Your task to perform on an android device: turn on the 12-hour format for clock Image 0: 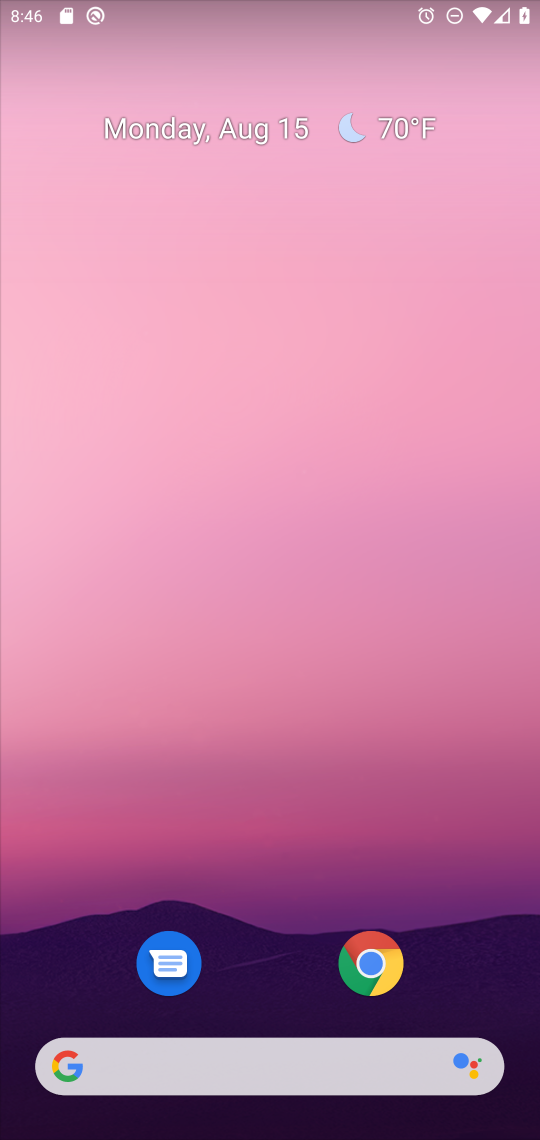
Step 0: drag from (280, 979) to (215, 330)
Your task to perform on an android device: turn on the 12-hour format for clock Image 1: 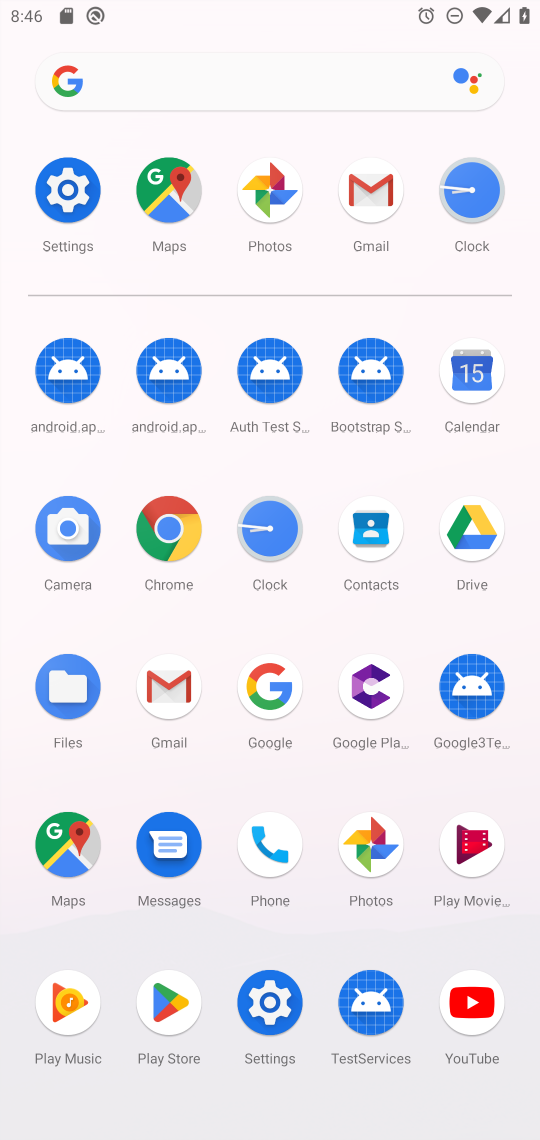
Step 1: click (284, 511)
Your task to perform on an android device: turn on the 12-hour format for clock Image 2: 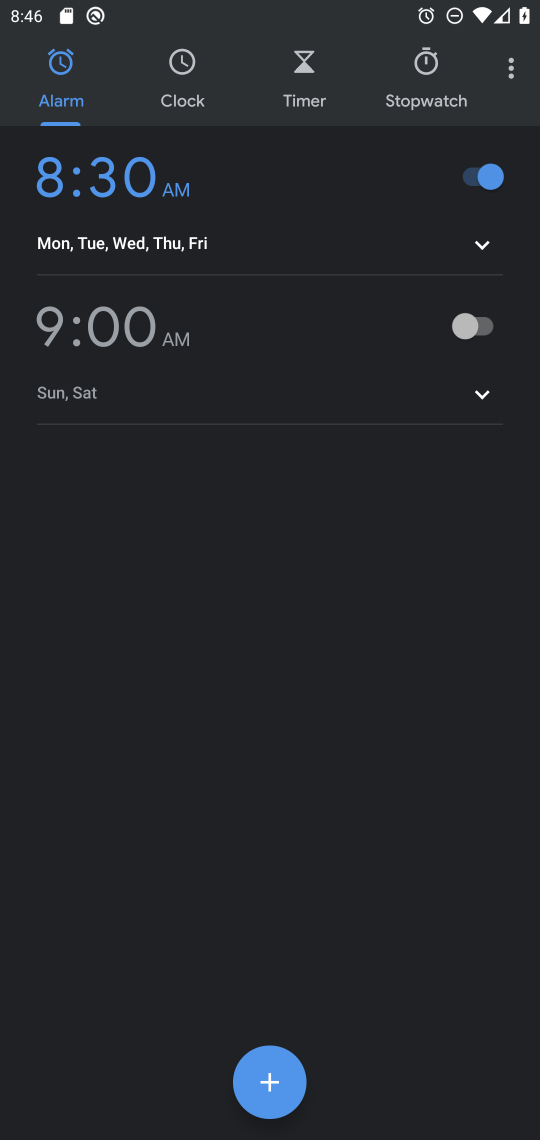
Step 2: click (529, 63)
Your task to perform on an android device: turn on the 12-hour format for clock Image 3: 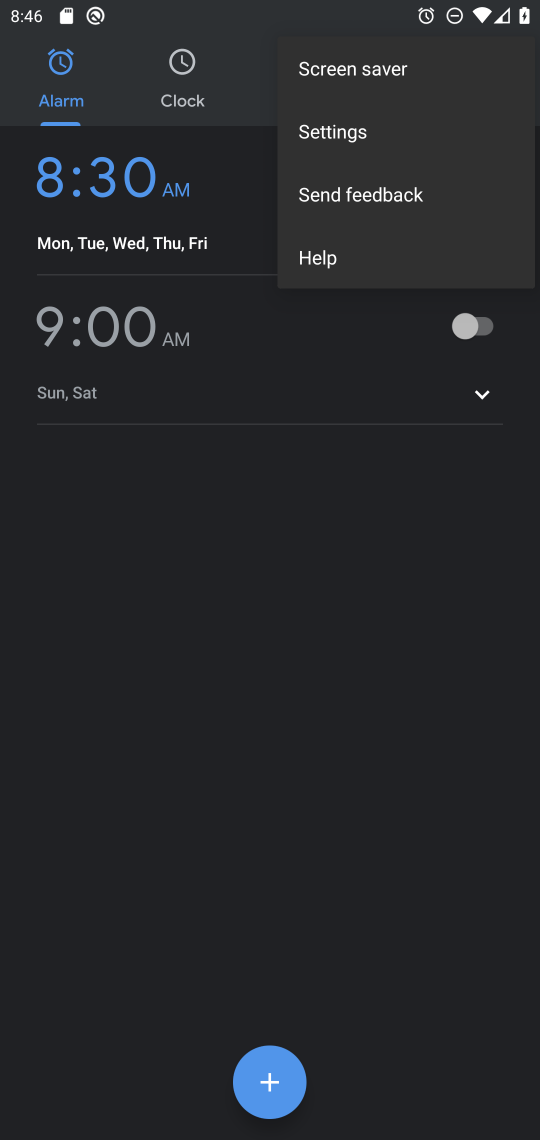
Step 3: click (327, 124)
Your task to perform on an android device: turn on the 12-hour format for clock Image 4: 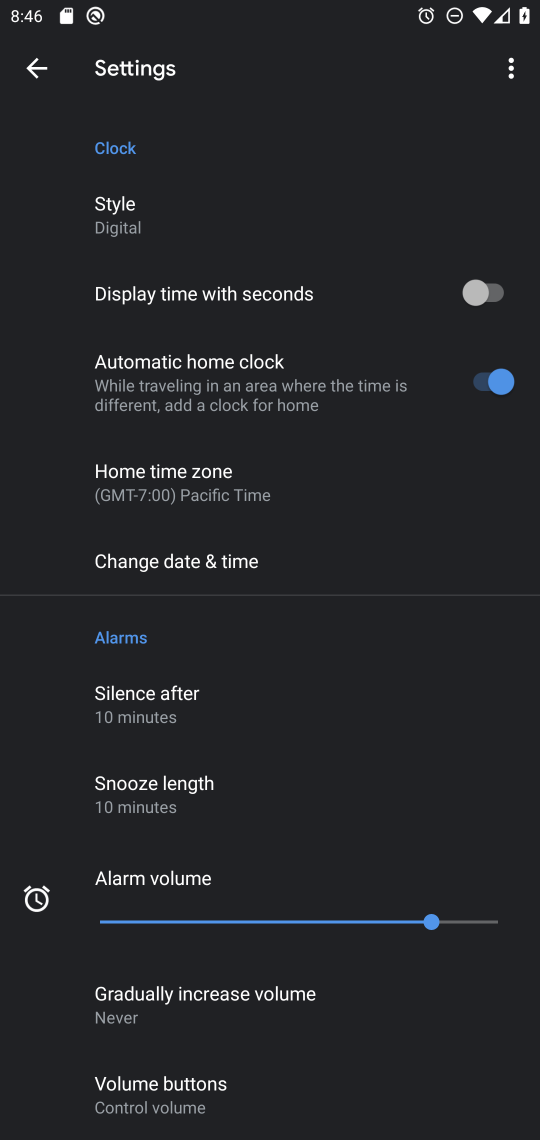
Step 4: task complete